Your task to perform on an android device: When is my next appointment? Image 0: 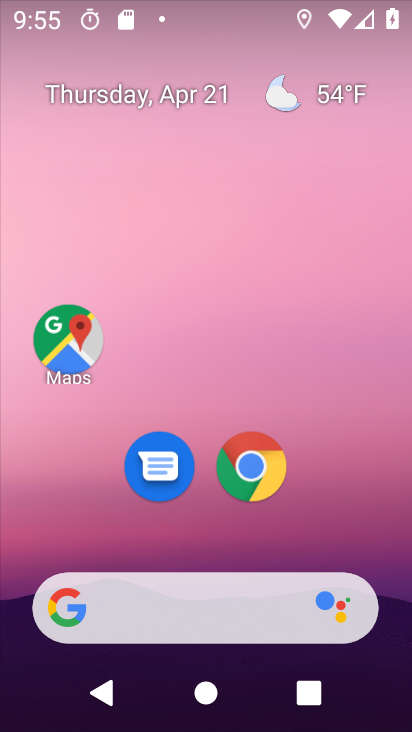
Step 0: drag from (368, 499) to (365, 241)
Your task to perform on an android device: When is my next appointment? Image 1: 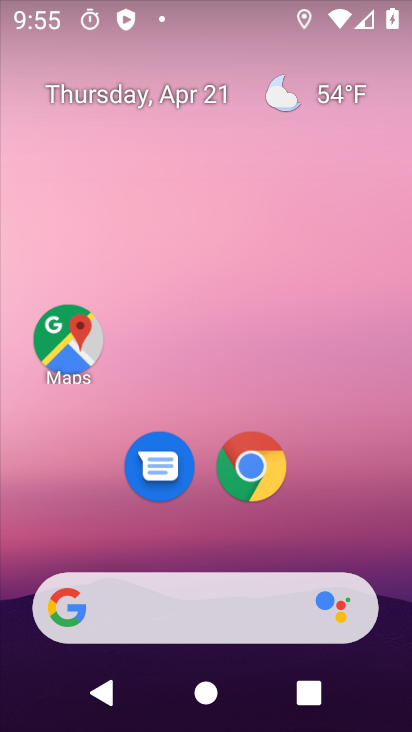
Step 1: drag from (373, 503) to (343, 214)
Your task to perform on an android device: When is my next appointment? Image 2: 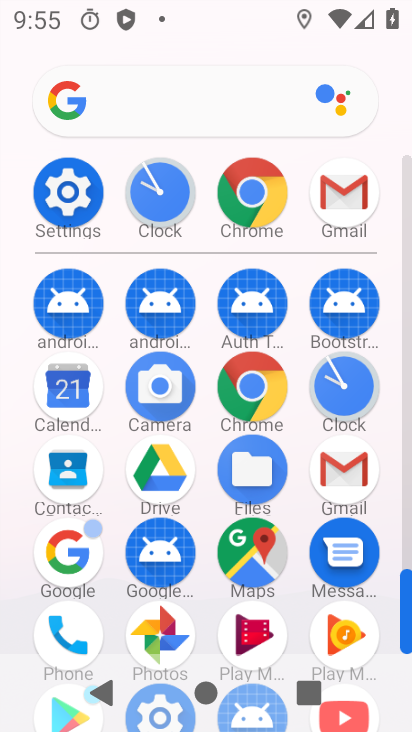
Step 2: click (60, 401)
Your task to perform on an android device: When is my next appointment? Image 3: 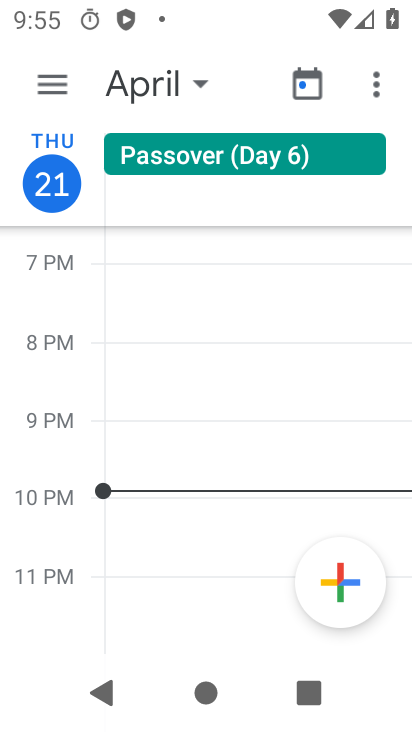
Step 3: click (53, 92)
Your task to perform on an android device: When is my next appointment? Image 4: 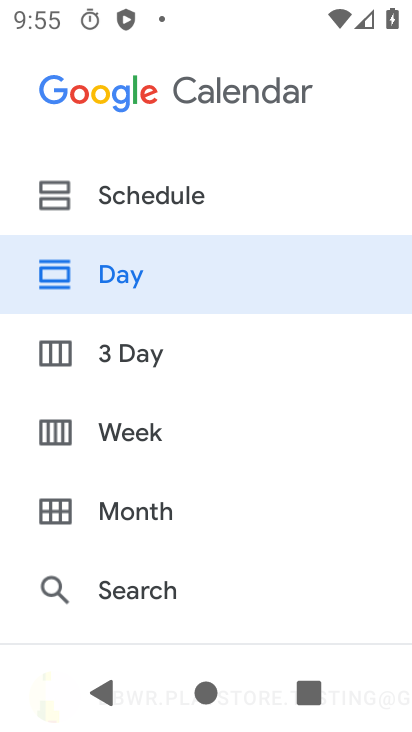
Step 4: click (111, 207)
Your task to perform on an android device: When is my next appointment? Image 5: 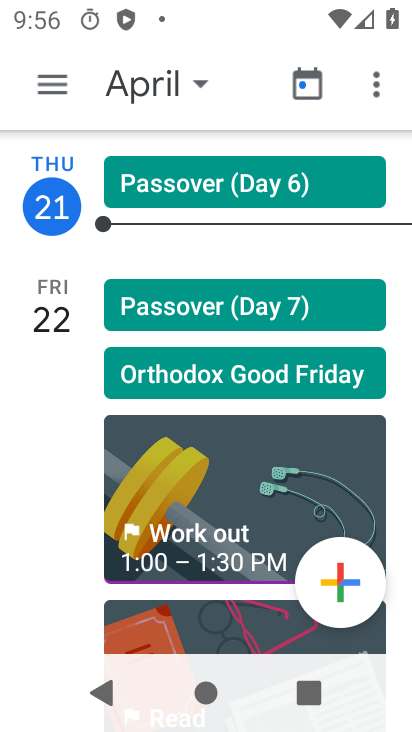
Step 5: drag from (57, 580) to (66, 356)
Your task to perform on an android device: When is my next appointment? Image 6: 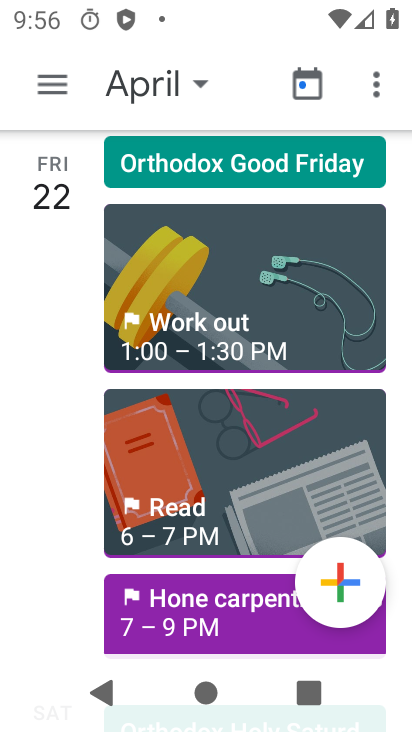
Step 6: drag from (53, 578) to (54, 413)
Your task to perform on an android device: When is my next appointment? Image 7: 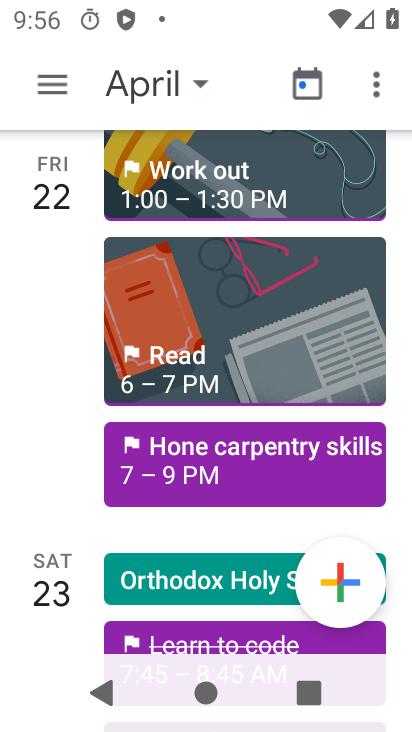
Step 7: drag from (57, 487) to (62, 289)
Your task to perform on an android device: When is my next appointment? Image 8: 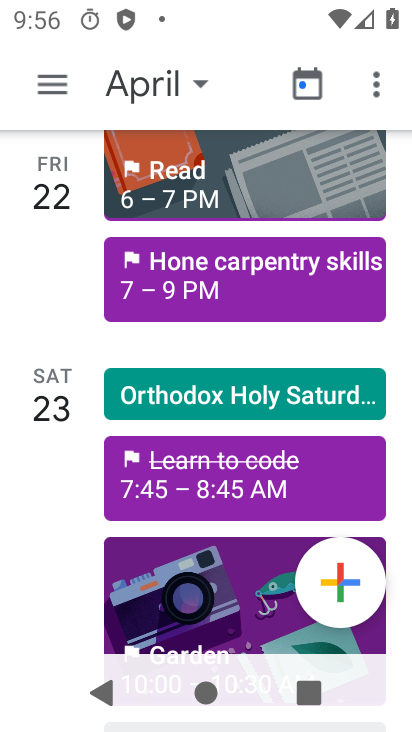
Step 8: drag from (65, 525) to (72, 310)
Your task to perform on an android device: When is my next appointment? Image 9: 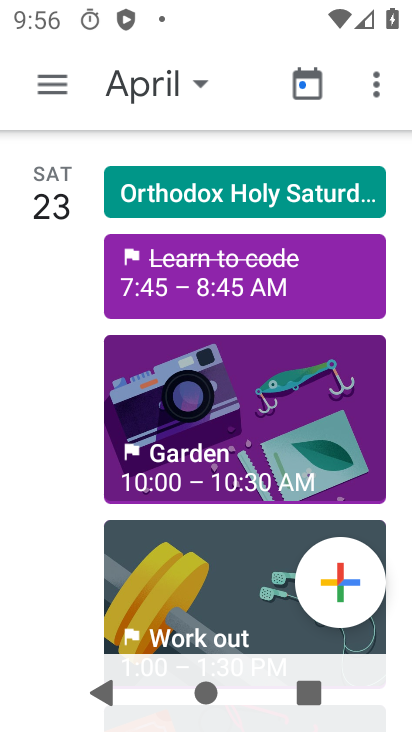
Step 9: drag from (55, 543) to (56, 345)
Your task to perform on an android device: When is my next appointment? Image 10: 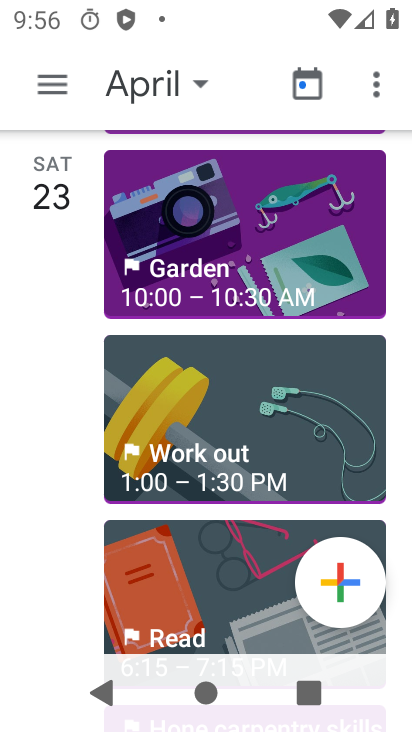
Step 10: drag from (37, 474) to (38, 257)
Your task to perform on an android device: When is my next appointment? Image 11: 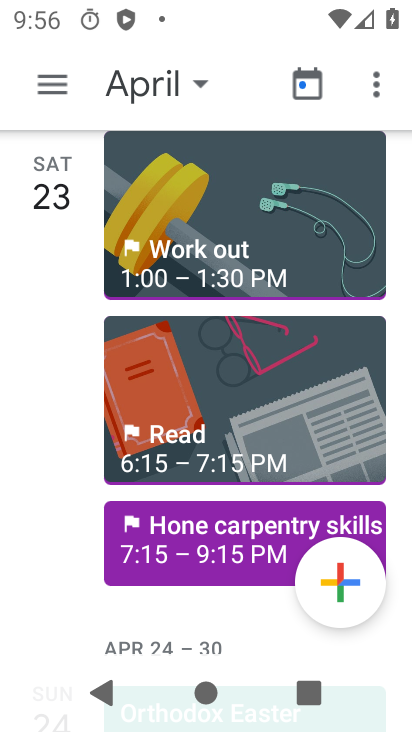
Step 11: drag from (27, 458) to (39, 294)
Your task to perform on an android device: When is my next appointment? Image 12: 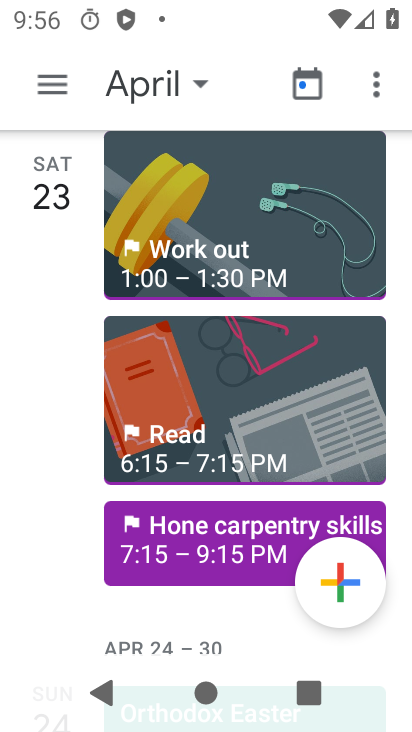
Step 12: drag from (54, 536) to (61, 342)
Your task to perform on an android device: When is my next appointment? Image 13: 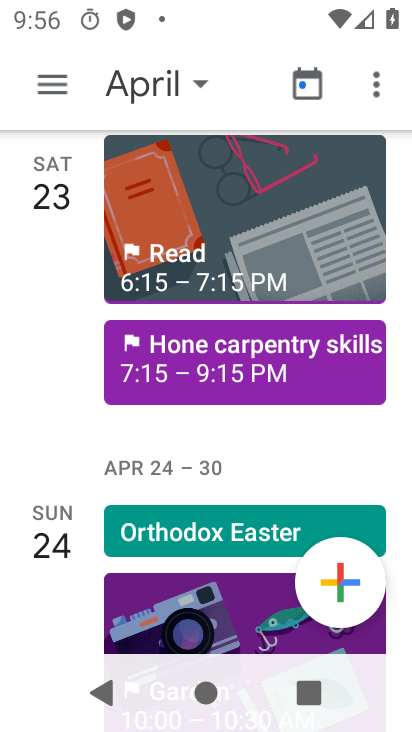
Step 13: drag from (59, 596) to (56, 406)
Your task to perform on an android device: When is my next appointment? Image 14: 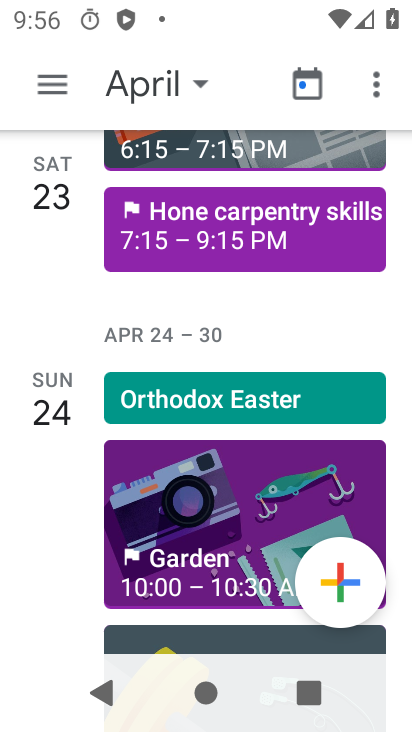
Step 14: drag from (49, 498) to (61, 306)
Your task to perform on an android device: When is my next appointment? Image 15: 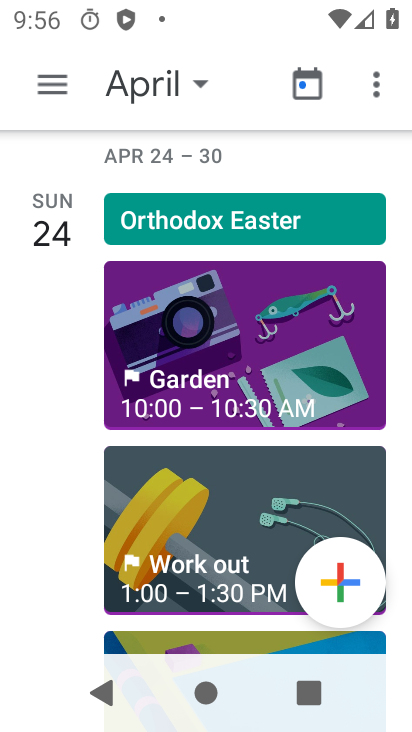
Step 15: drag from (73, 532) to (87, 286)
Your task to perform on an android device: When is my next appointment? Image 16: 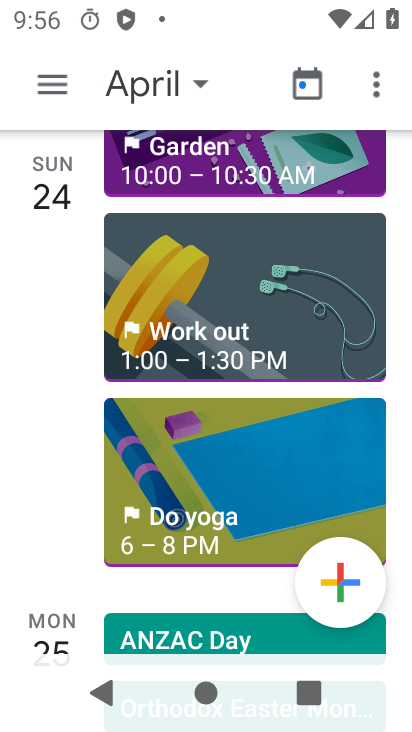
Step 16: drag from (68, 529) to (61, 281)
Your task to perform on an android device: When is my next appointment? Image 17: 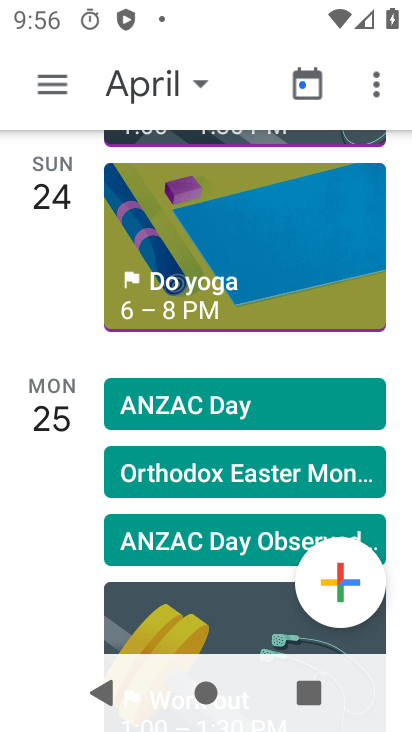
Step 17: drag from (61, 525) to (50, 230)
Your task to perform on an android device: When is my next appointment? Image 18: 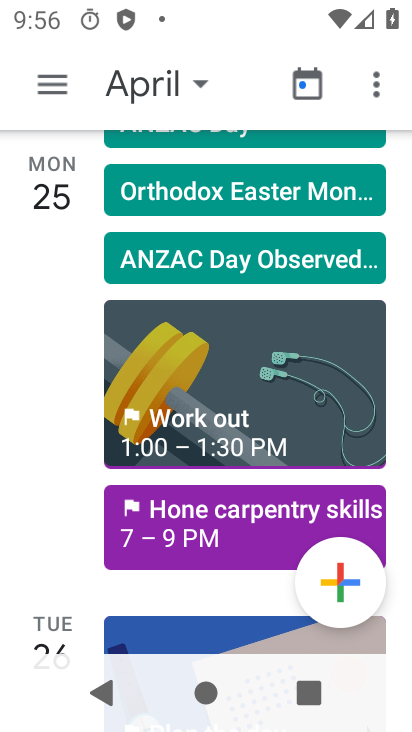
Step 18: drag from (64, 477) to (83, 249)
Your task to perform on an android device: When is my next appointment? Image 19: 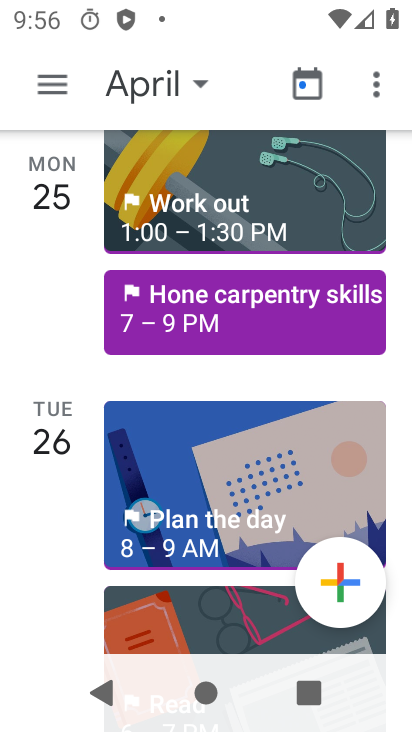
Step 19: drag from (65, 473) to (65, 273)
Your task to perform on an android device: When is my next appointment? Image 20: 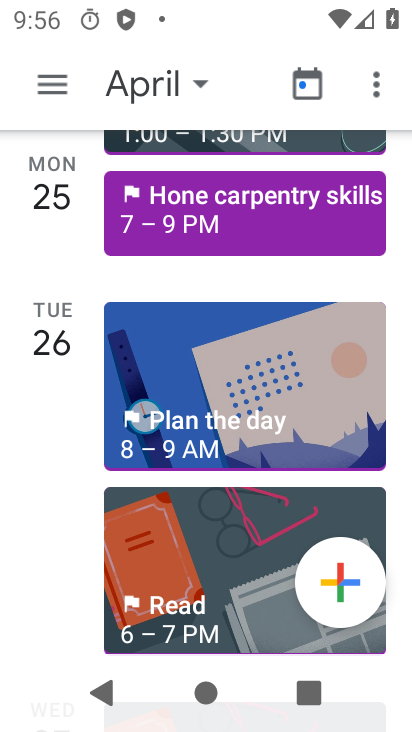
Step 20: drag from (63, 509) to (53, 234)
Your task to perform on an android device: When is my next appointment? Image 21: 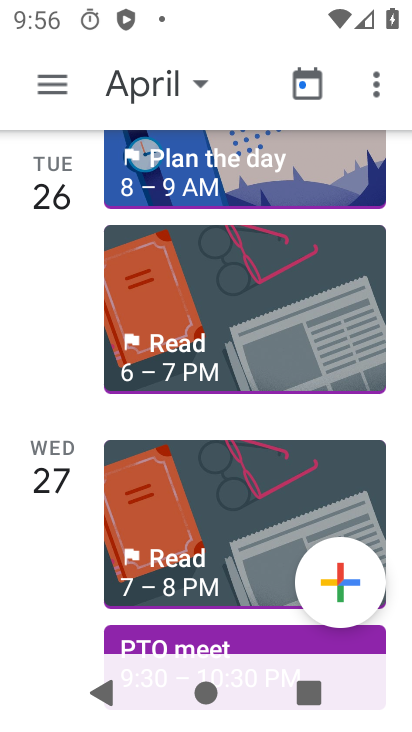
Step 21: drag from (63, 506) to (58, 277)
Your task to perform on an android device: When is my next appointment? Image 22: 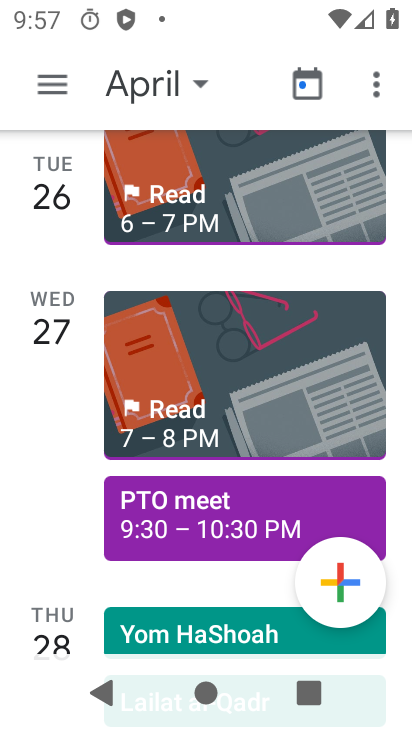
Step 22: click (160, 500)
Your task to perform on an android device: When is my next appointment? Image 23: 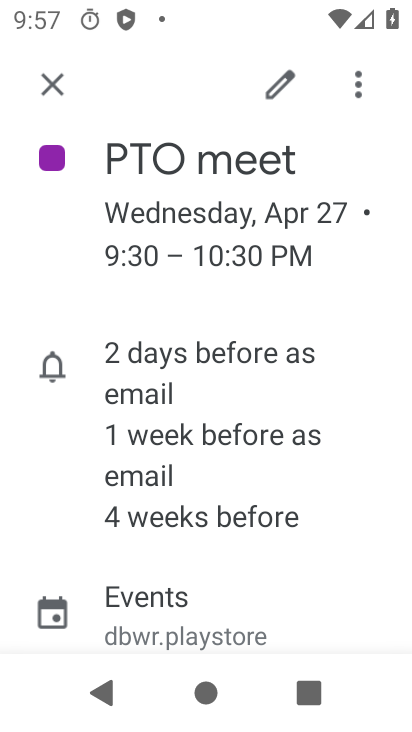
Step 23: task complete